Your task to perform on an android device: change the clock style Image 0: 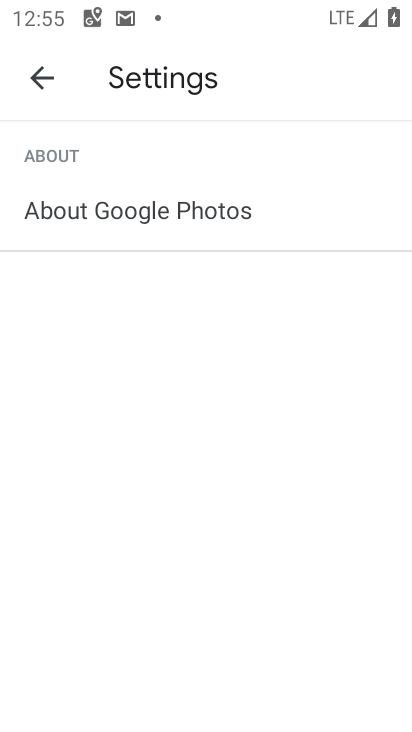
Step 0: press home button
Your task to perform on an android device: change the clock style Image 1: 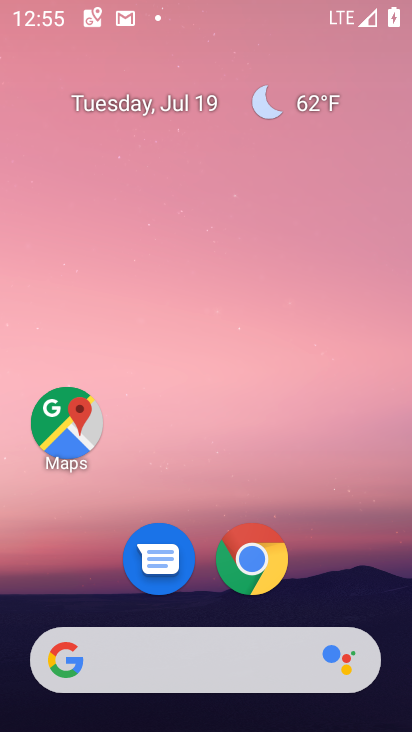
Step 1: drag from (191, 586) to (215, 174)
Your task to perform on an android device: change the clock style Image 2: 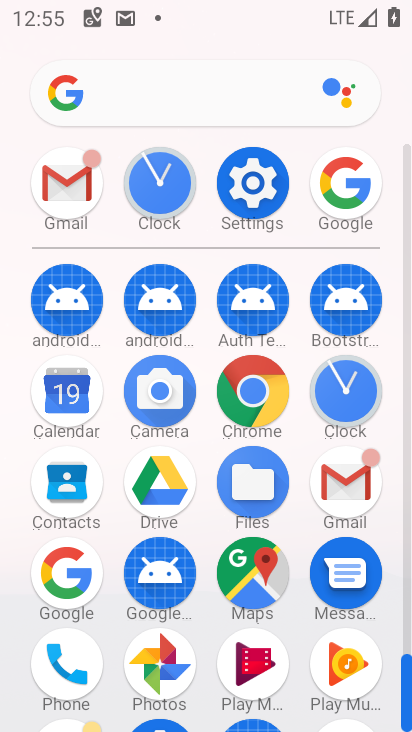
Step 2: click (341, 407)
Your task to perform on an android device: change the clock style Image 3: 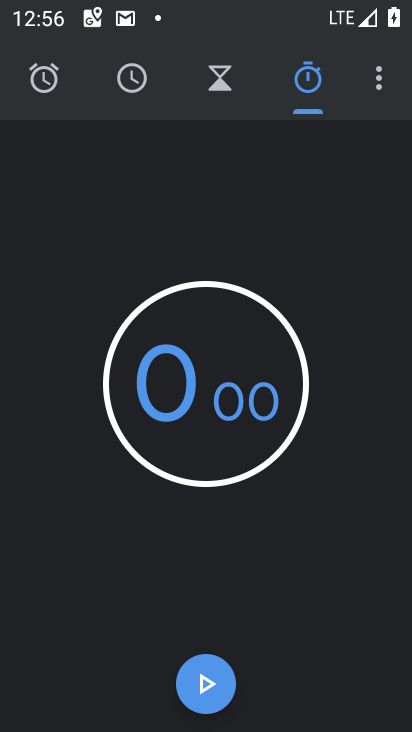
Step 3: click (379, 84)
Your task to perform on an android device: change the clock style Image 4: 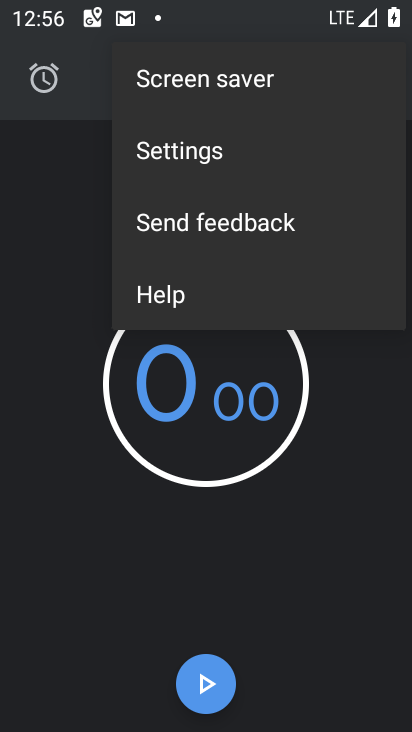
Step 4: click (196, 153)
Your task to perform on an android device: change the clock style Image 5: 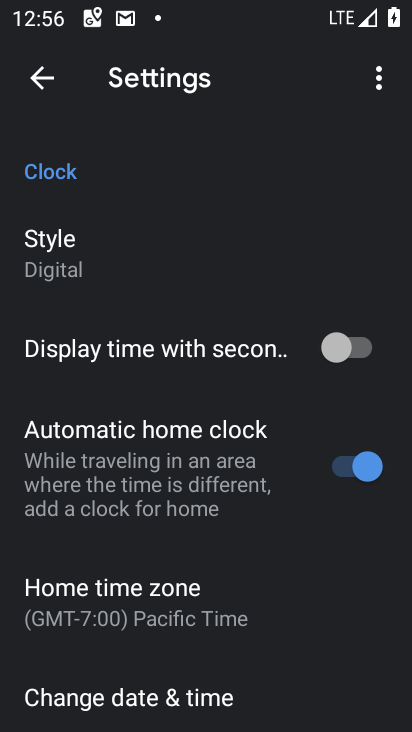
Step 5: click (101, 246)
Your task to perform on an android device: change the clock style Image 6: 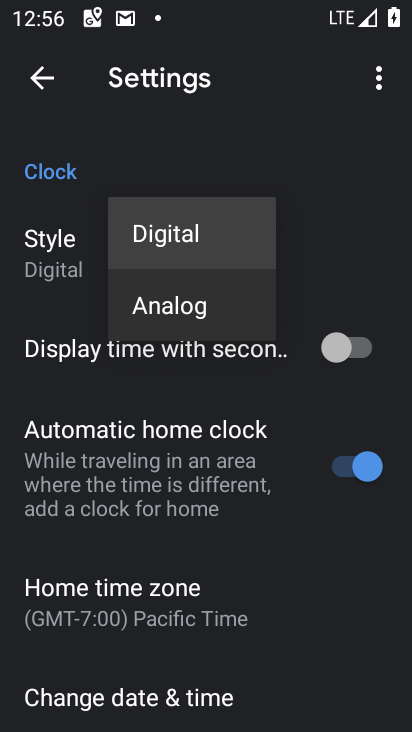
Step 6: click (150, 313)
Your task to perform on an android device: change the clock style Image 7: 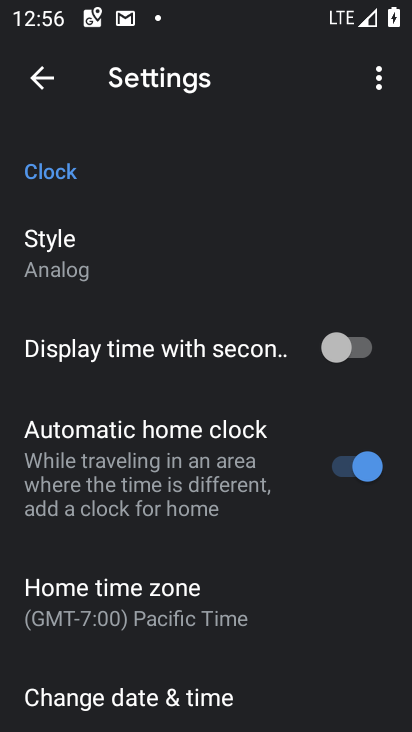
Step 7: task complete